Your task to perform on an android device: Check the news Image 0: 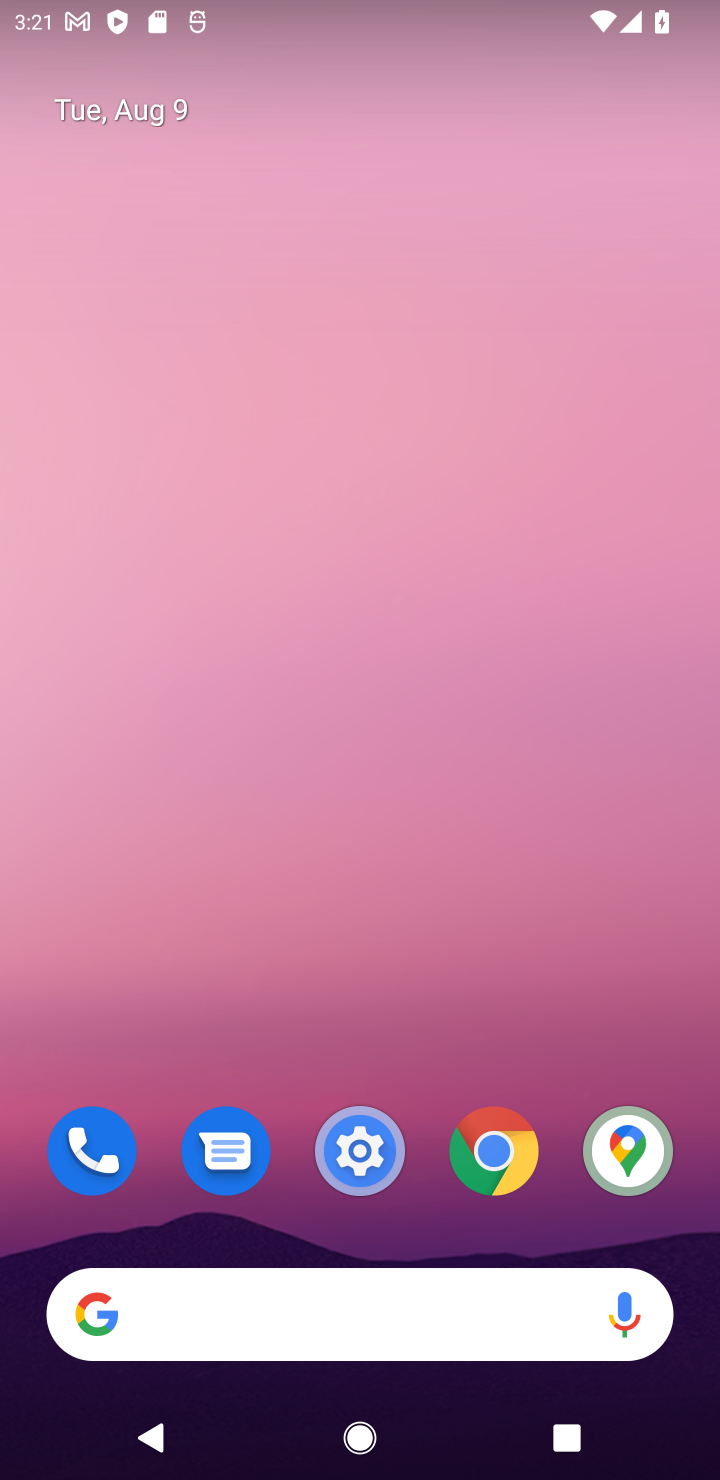
Step 0: click (383, 1308)
Your task to perform on an android device: Check the news Image 1: 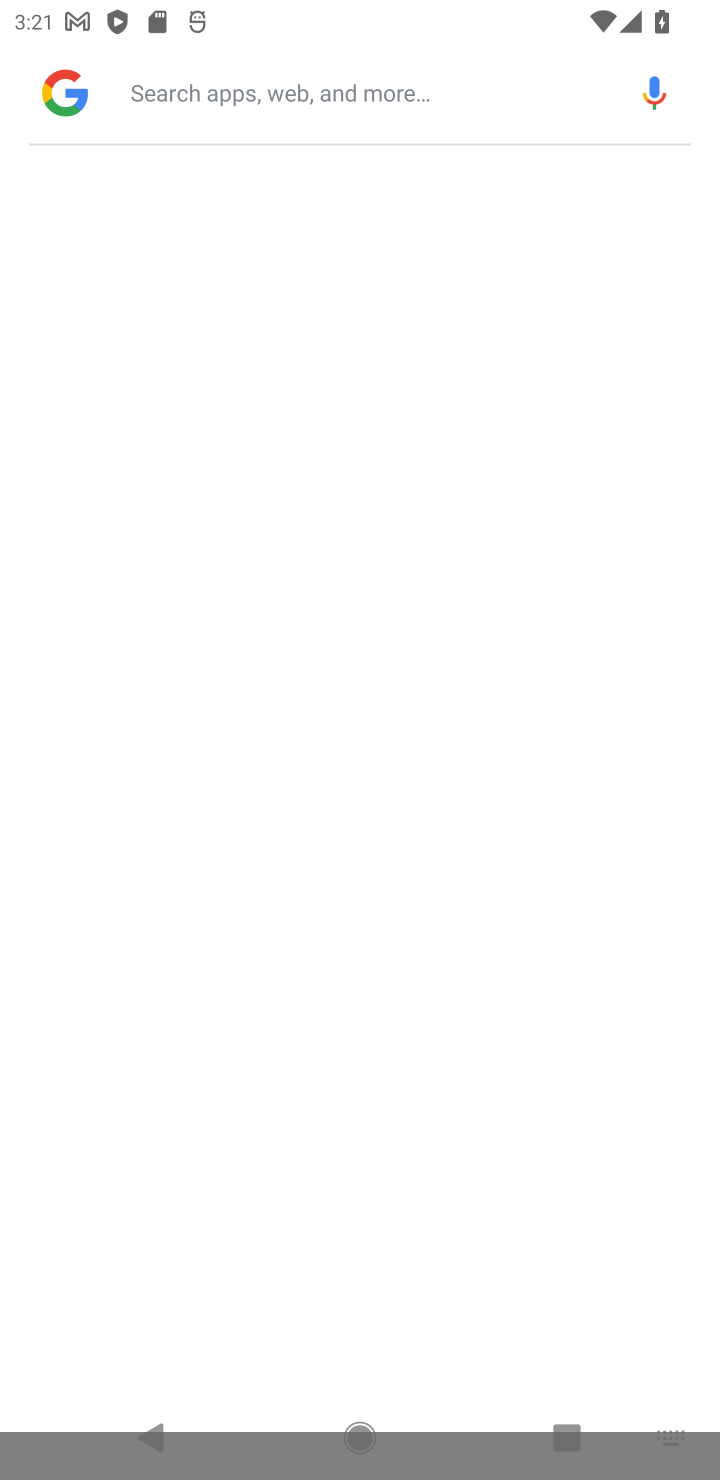
Step 1: type "news"
Your task to perform on an android device: Check the news Image 2: 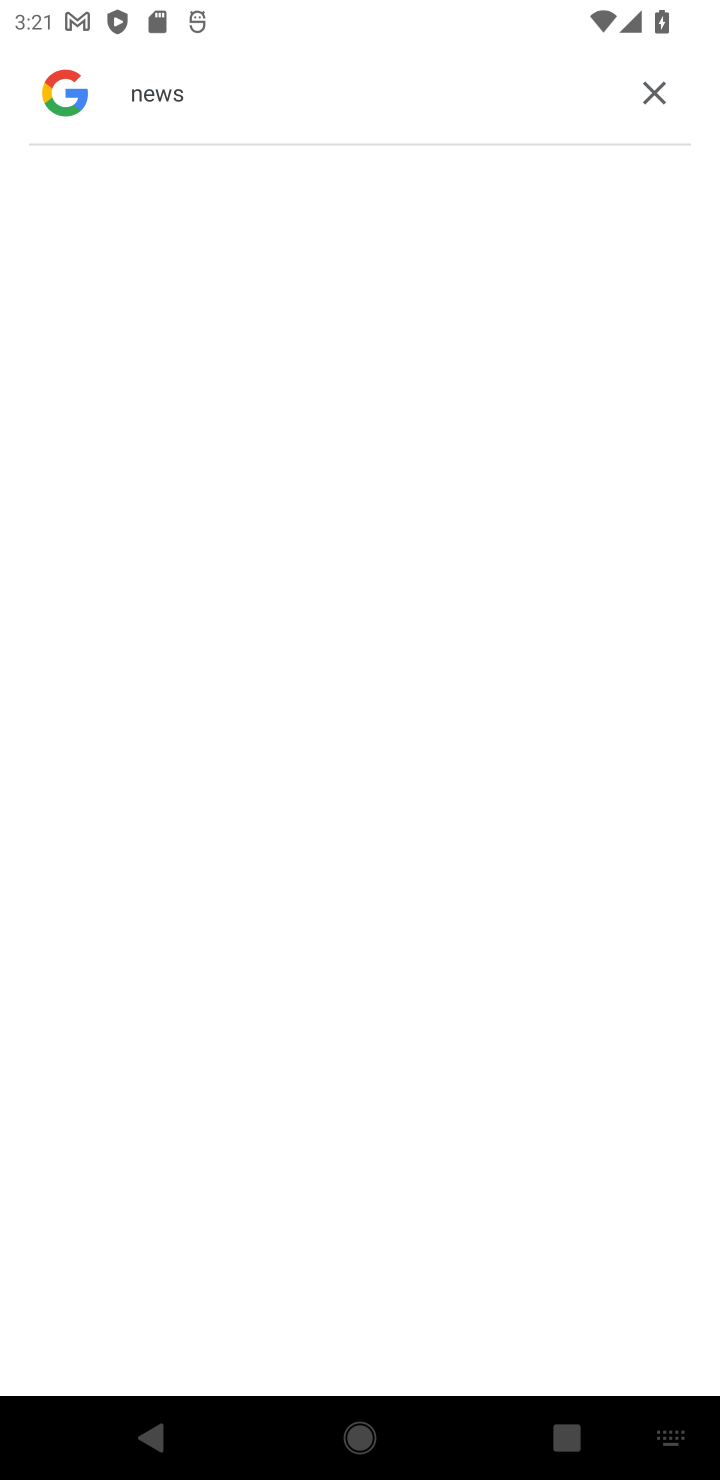
Step 2: type ""
Your task to perform on an android device: Check the news Image 3: 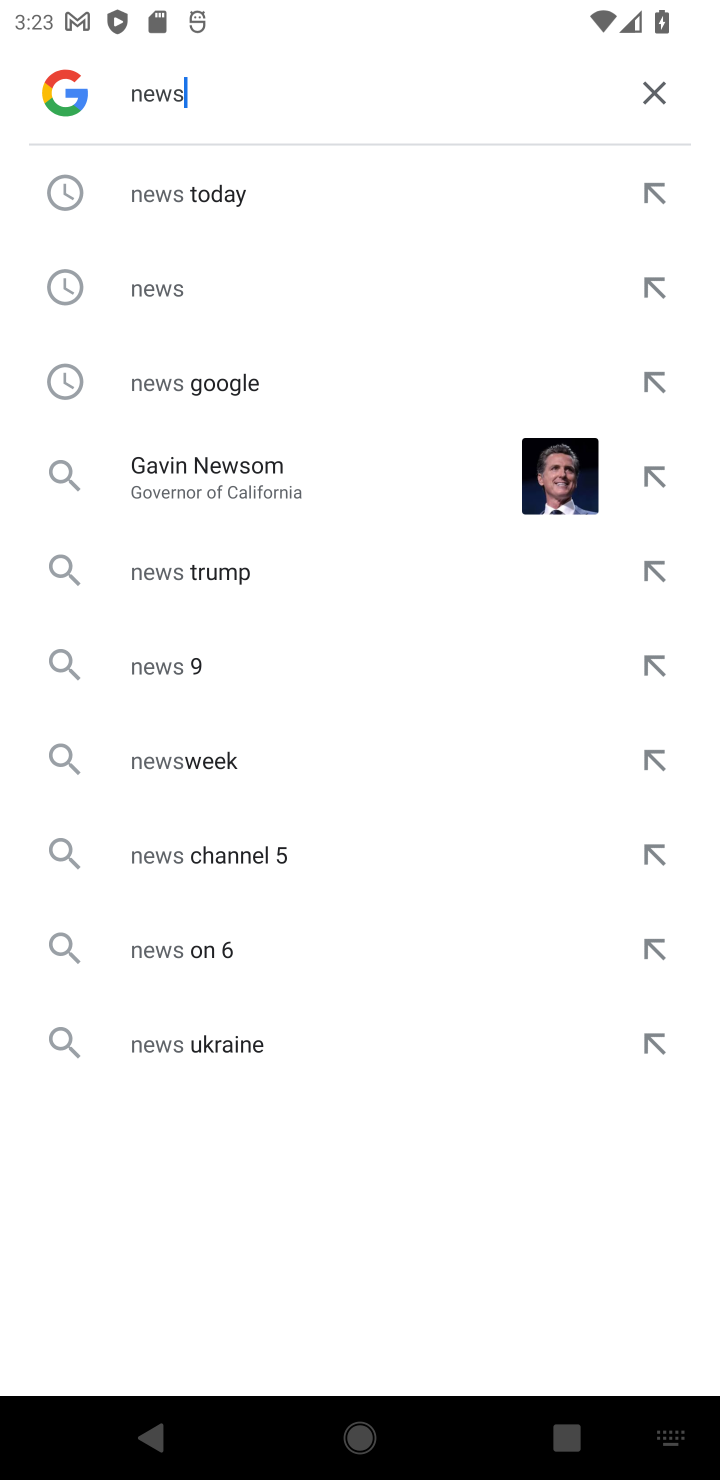
Step 3: click (118, 289)
Your task to perform on an android device: Check the news Image 4: 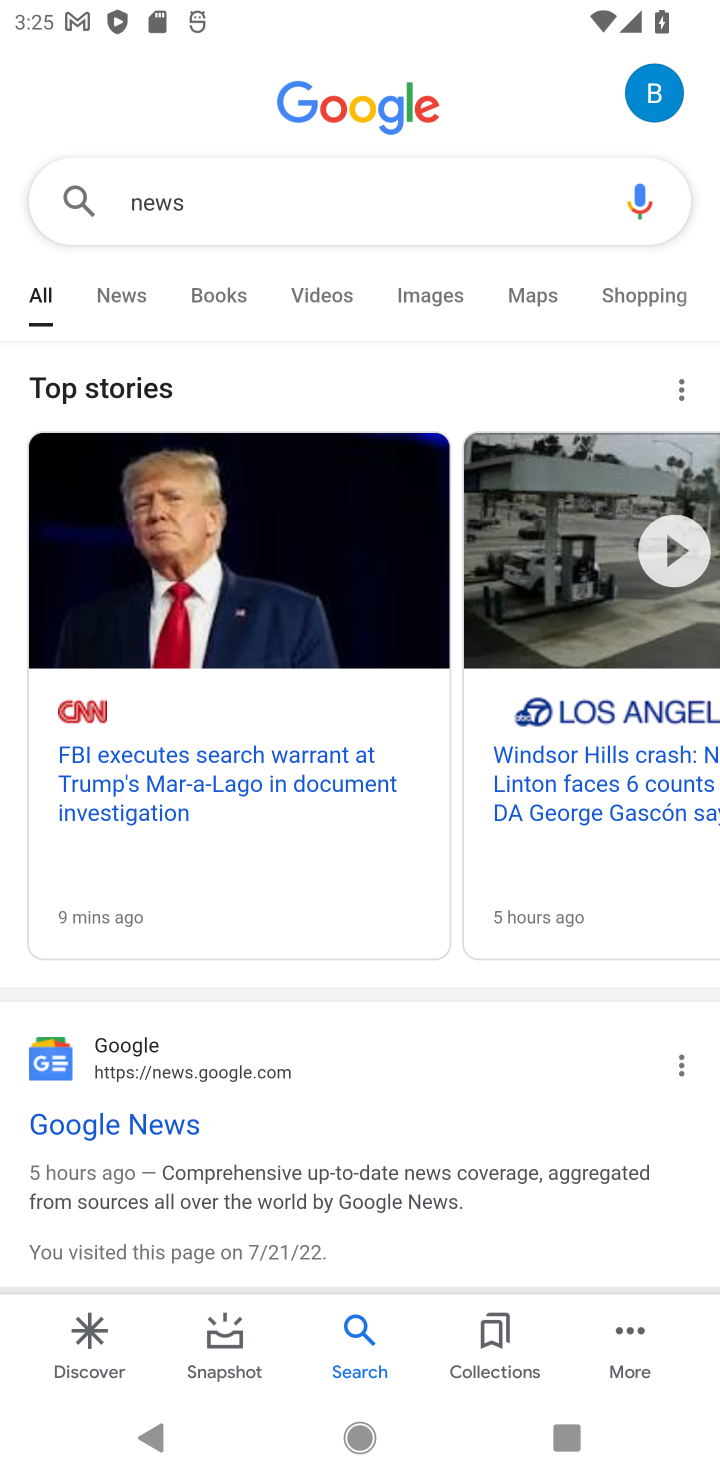
Step 4: task complete